Your task to perform on an android device: refresh tabs in the chrome app Image 0: 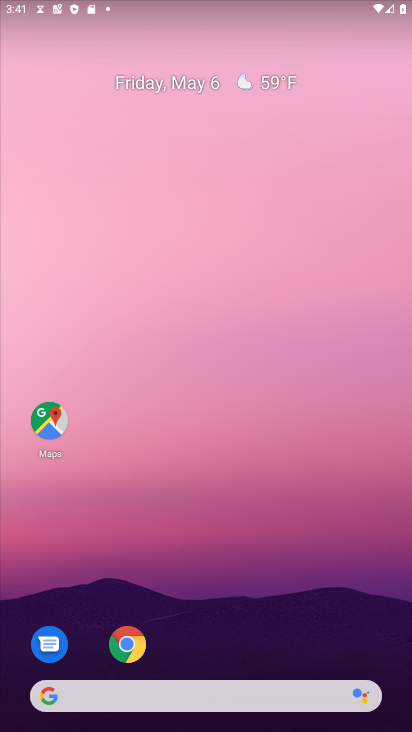
Step 0: click (125, 644)
Your task to perform on an android device: refresh tabs in the chrome app Image 1: 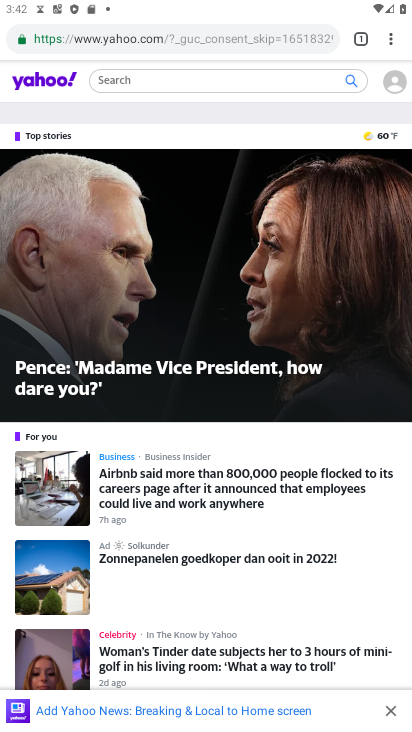
Step 1: click (391, 38)
Your task to perform on an android device: refresh tabs in the chrome app Image 2: 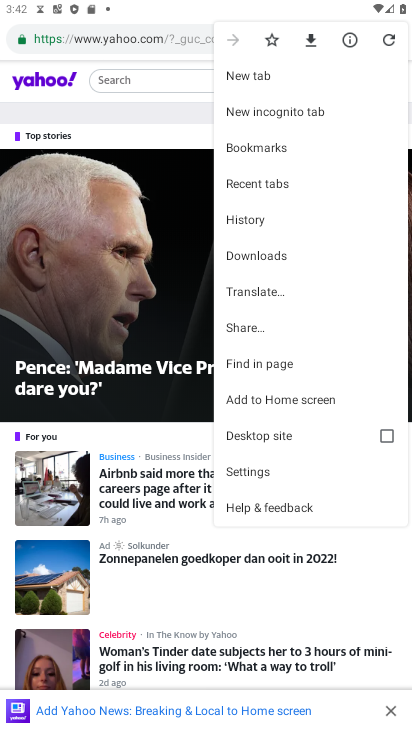
Step 2: click (391, 37)
Your task to perform on an android device: refresh tabs in the chrome app Image 3: 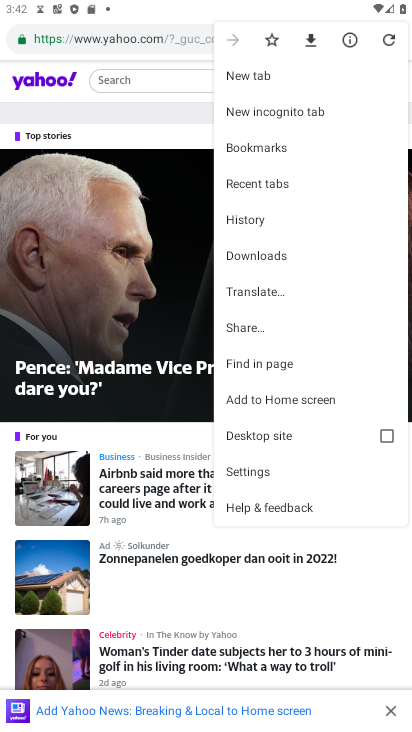
Step 3: click (391, 37)
Your task to perform on an android device: refresh tabs in the chrome app Image 4: 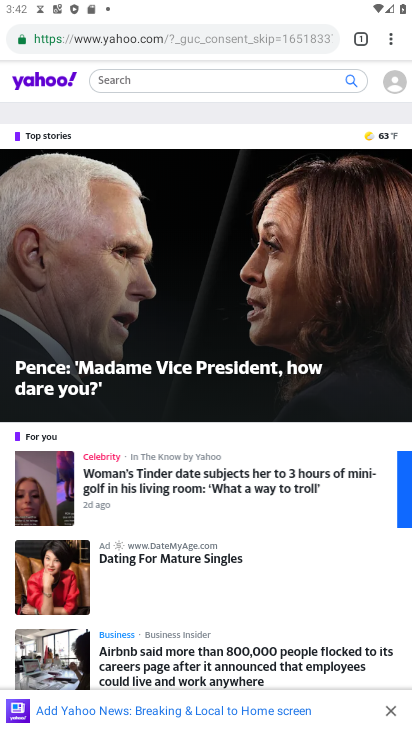
Step 4: task complete